Your task to perform on an android device: Open privacy settings Image 0: 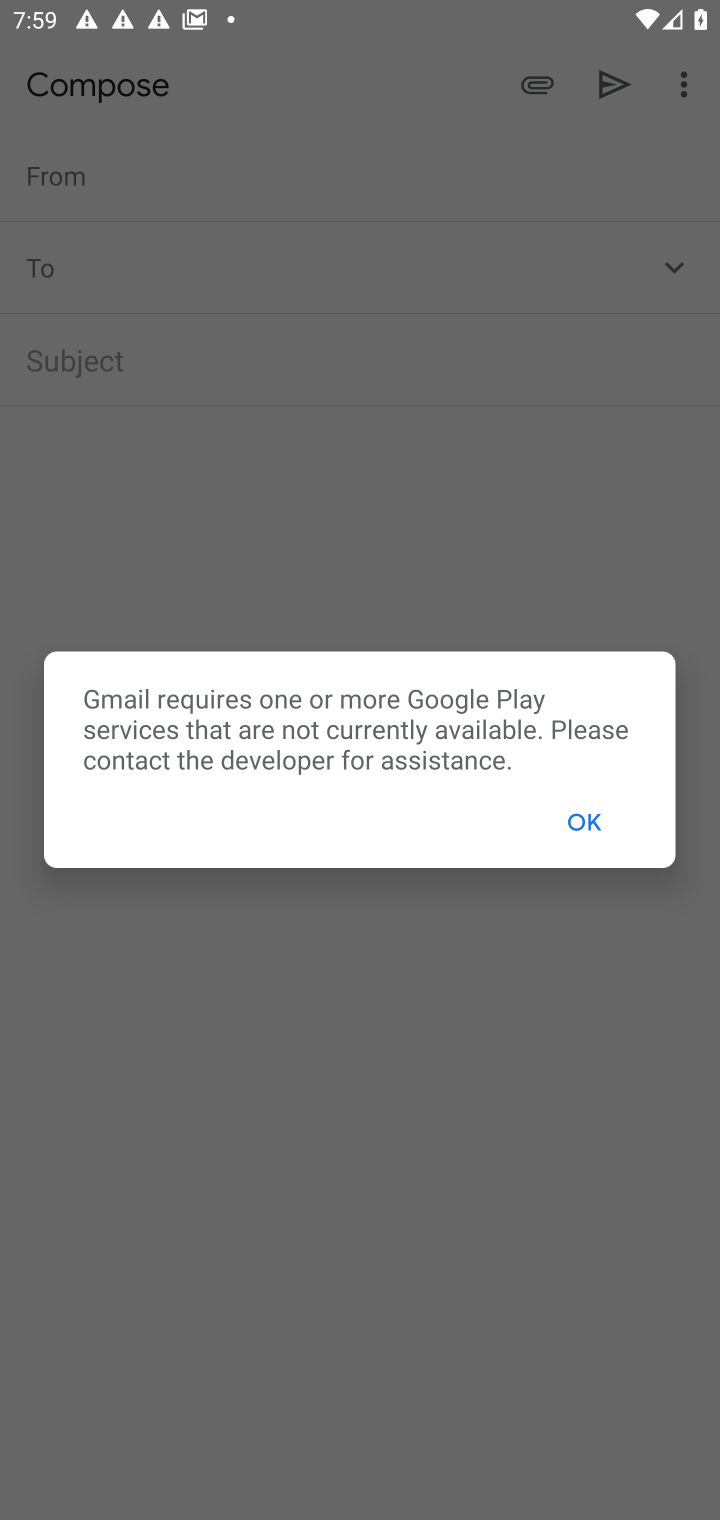
Step 0: press home button
Your task to perform on an android device: Open privacy settings Image 1: 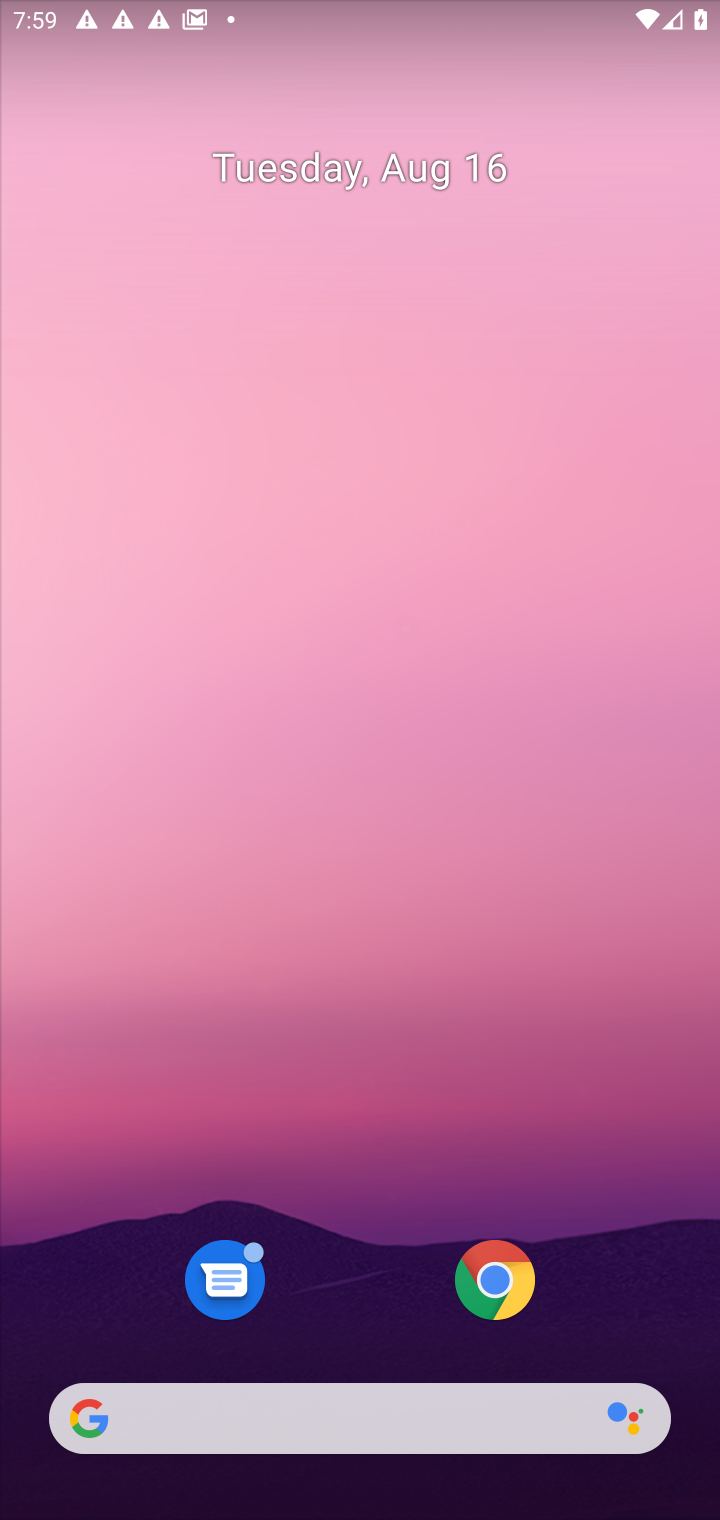
Step 1: click (394, 639)
Your task to perform on an android device: Open privacy settings Image 2: 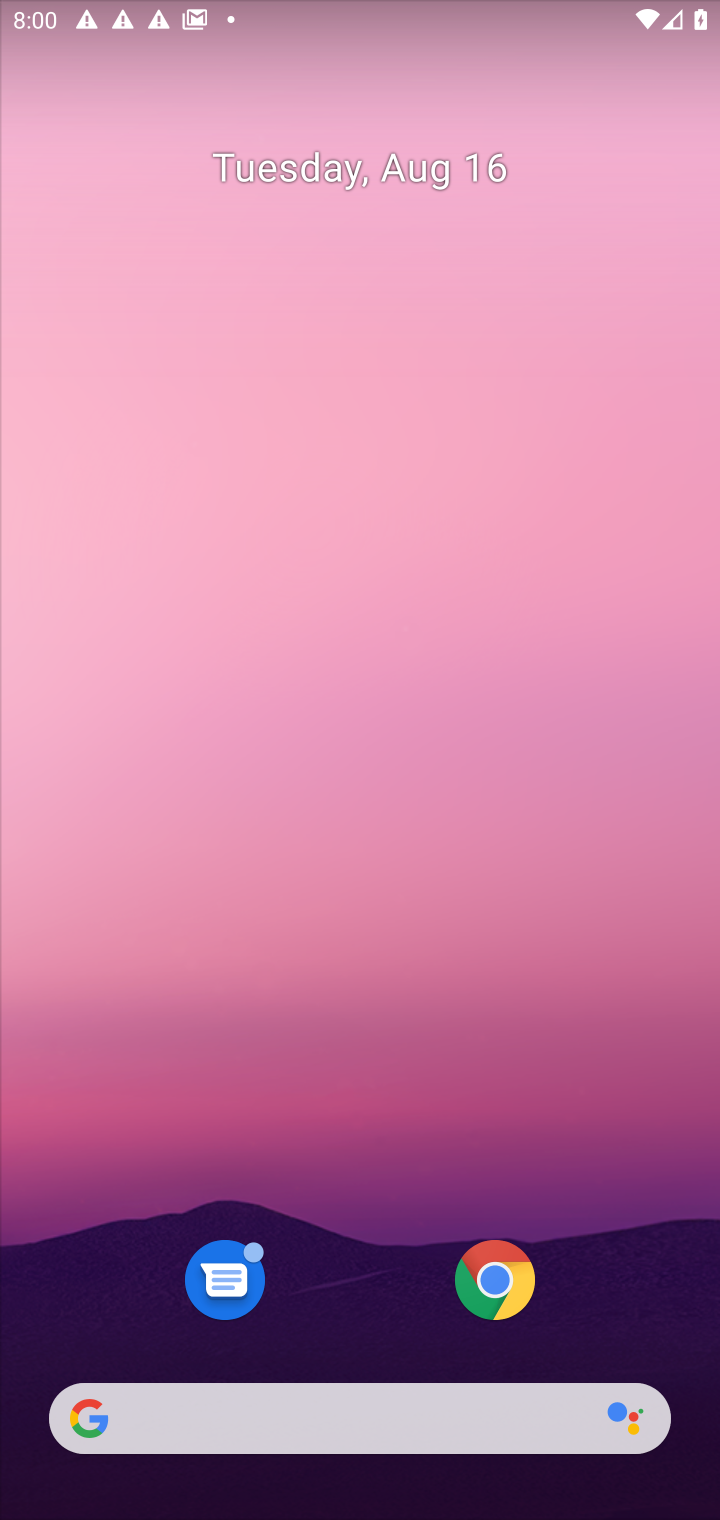
Step 2: drag from (374, 930) to (405, 222)
Your task to perform on an android device: Open privacy settings Image 3: 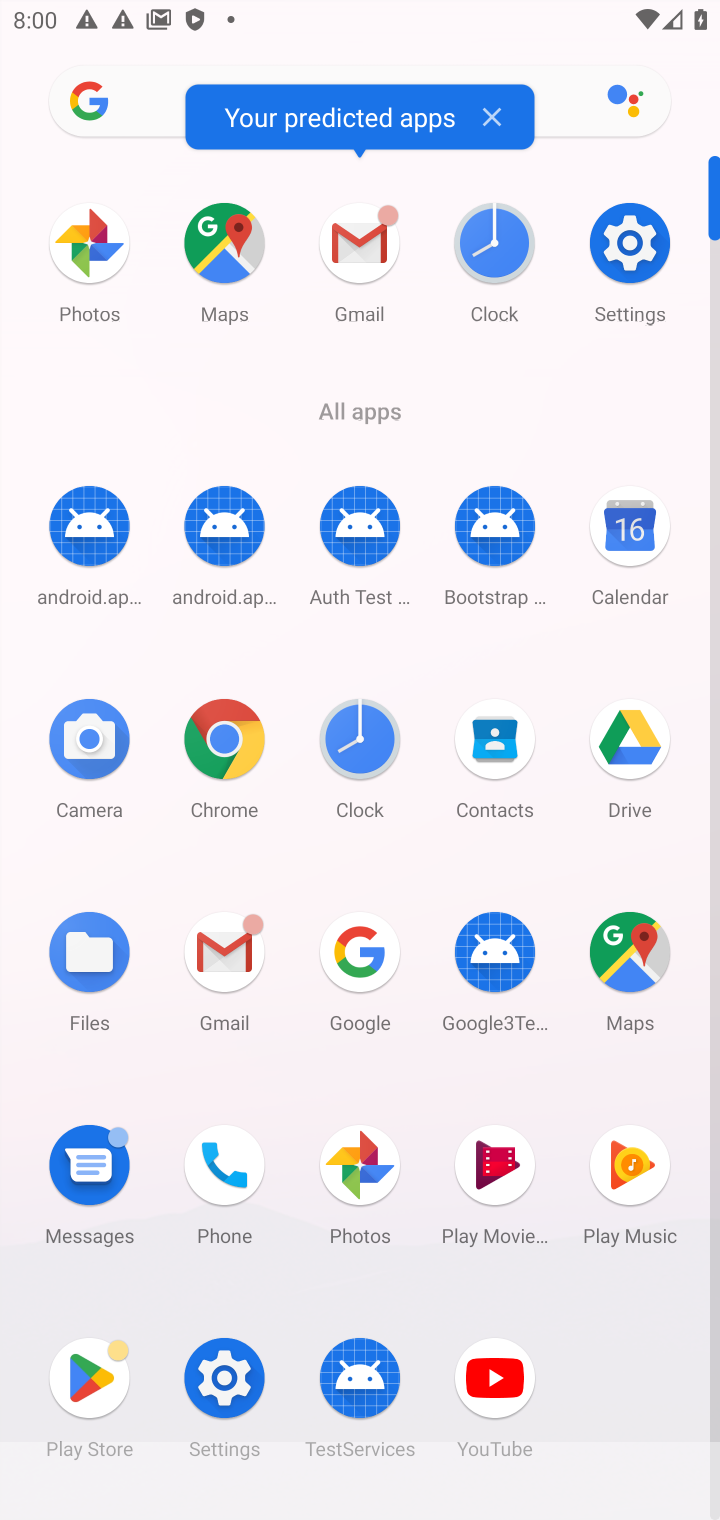
Step 3: click (643, 270)
Your task to perform on an android device: Open privacy settings Image 4: 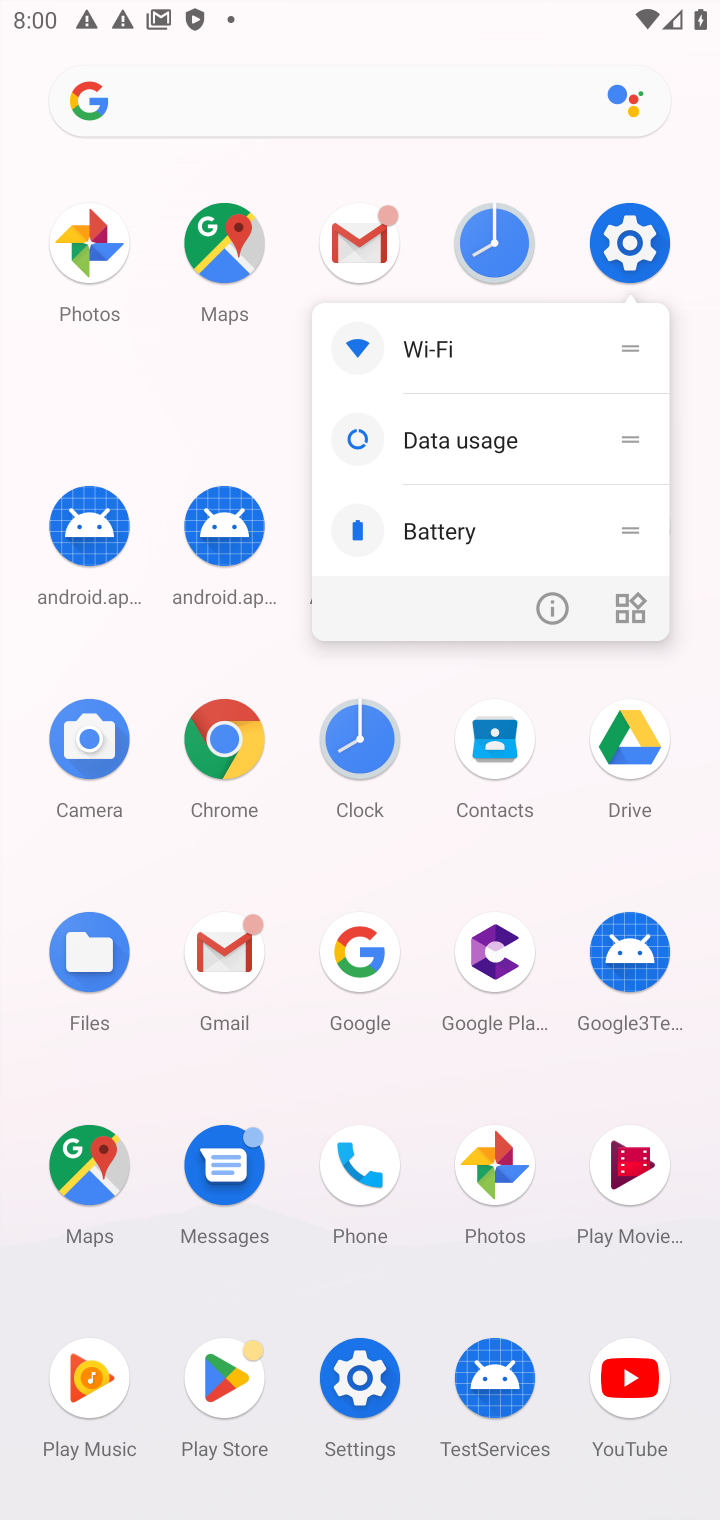
Step 4: click (643, 270)
Your task to perform on an android device: Open privacy settings Image 5: 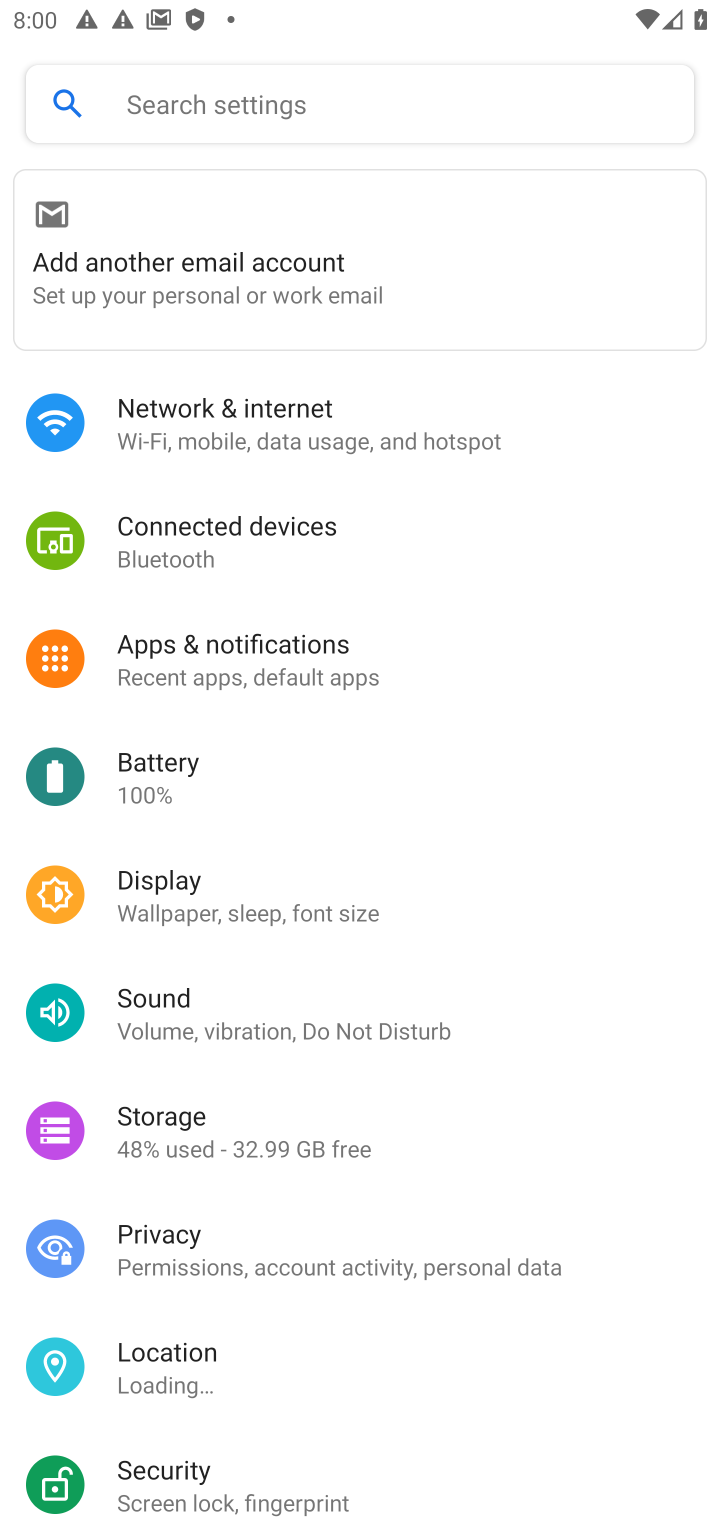
Step 5: click (160, 1257)
Your task to perform on an android device: Open privacy settings Image 6: 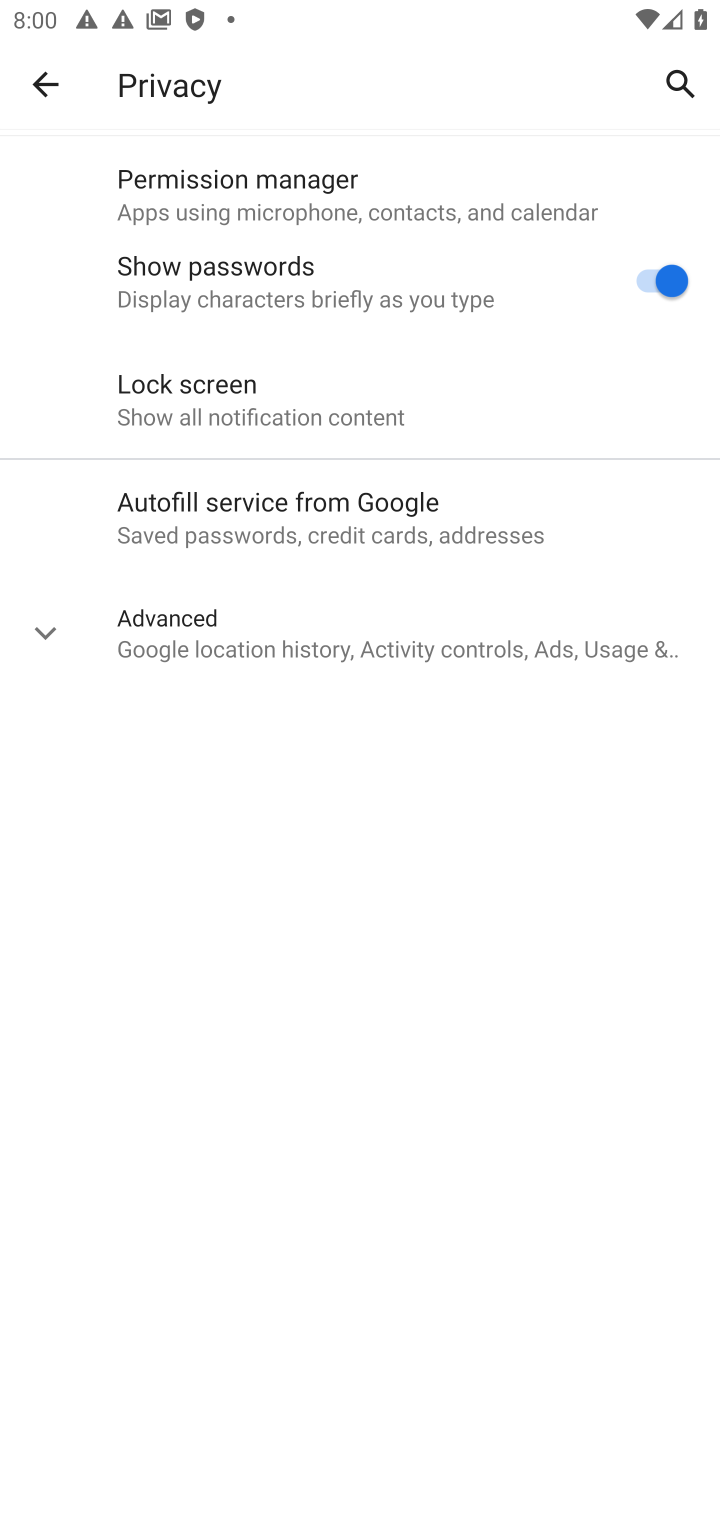
Step 6: task complete